Your task to perform on an android device: turn off picture-in-picture Image 0: 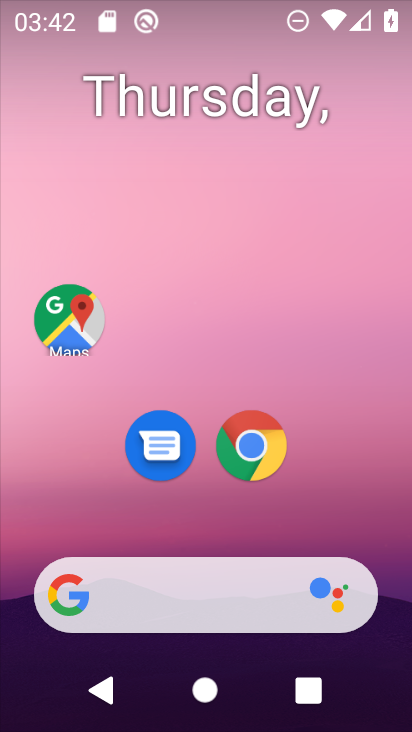
Step 0: click (256, 453)
Your task to perform on an android device: turn off picture-in-picture Image 1: 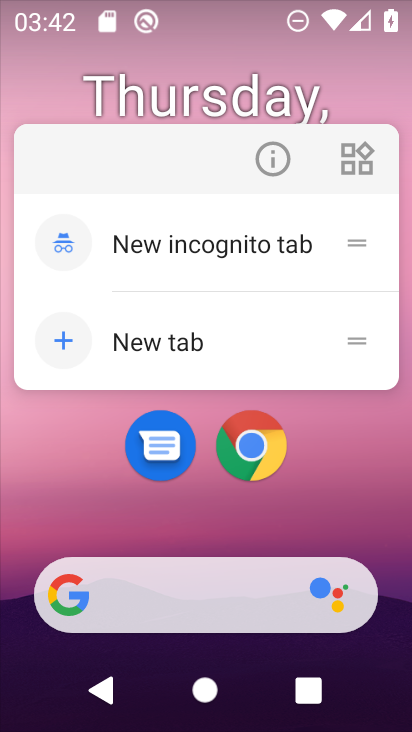
Step 1: click (270, 165)
Your task to perform on an android device: turn off picture-in-picture Image 2: 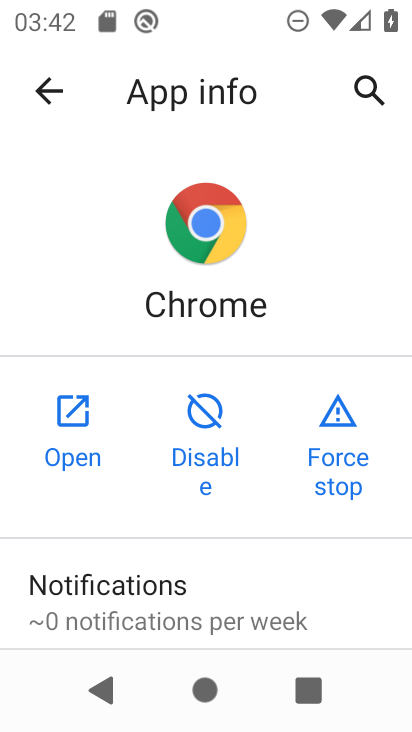
Step 2: drag from (236, 560) to (215, 133)
Your task to perform on an android device: turn off picture-in-picture Image 3: 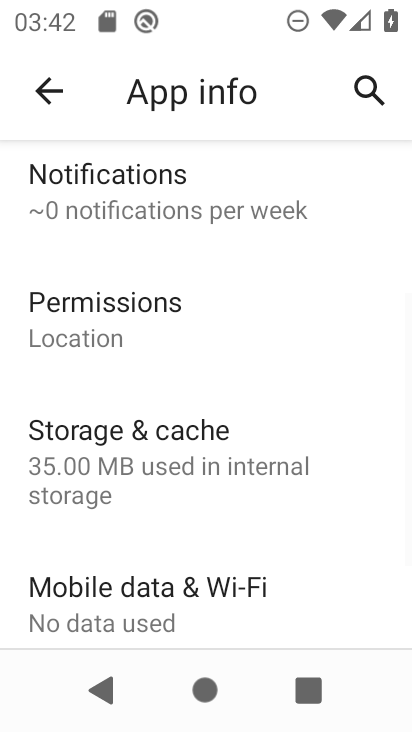
Step 3: drag from (192, 541) to (193, 32)
Your task to perform on an android device: turn off picture-in-picture Image 4: 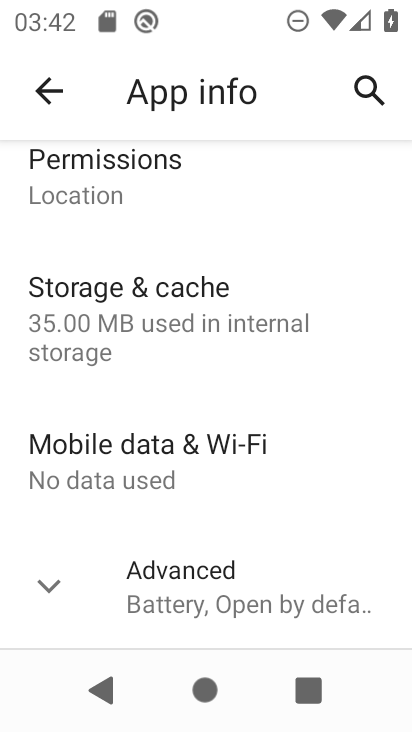
Step 4: click (50, 591)
Your task to perform on an android device: turn off picture-in-picture Image 5: 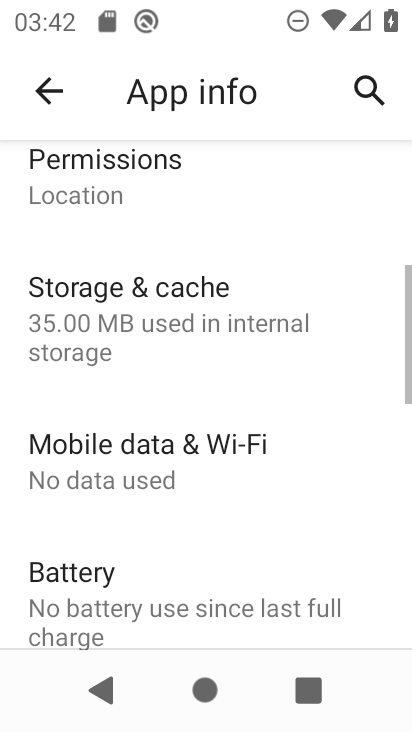
Step 5: drag from (188, 589) to (169, 47)
Your task to perform on an android device: turn off picture-in-picture Image 6: 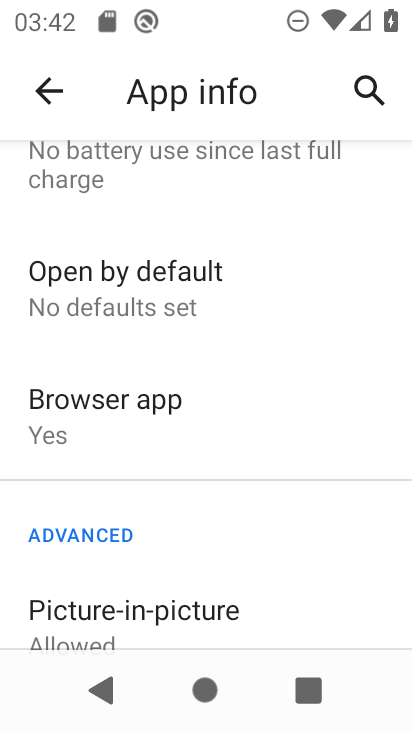
Step 6: drag from (220, 518) to (184, 97)
Your task to perform on an android device: turn off picture-in-picture Image 7: 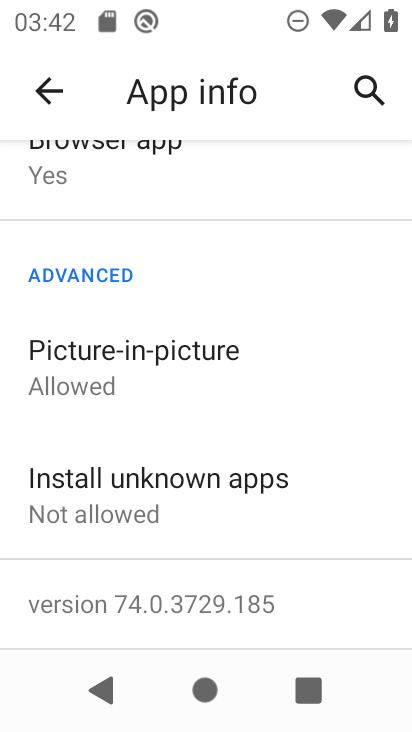
Step 7: click (86, 390)
Your task to perform on an android device: turn off picture-in-picture Image 8: 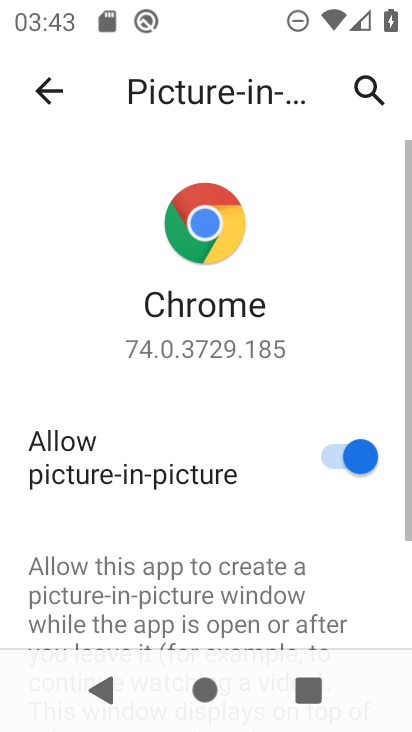
Step 8: click (348, 468)
Your task to perform on an android device: turn off picture-in-picture Image 9: 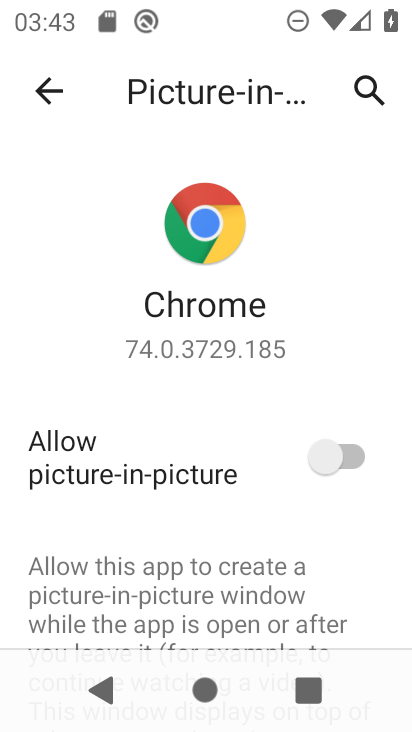
Step 9: task complete